Your task to perform on an android device: Look up the best rated headphones on Aliexpress Image 0: 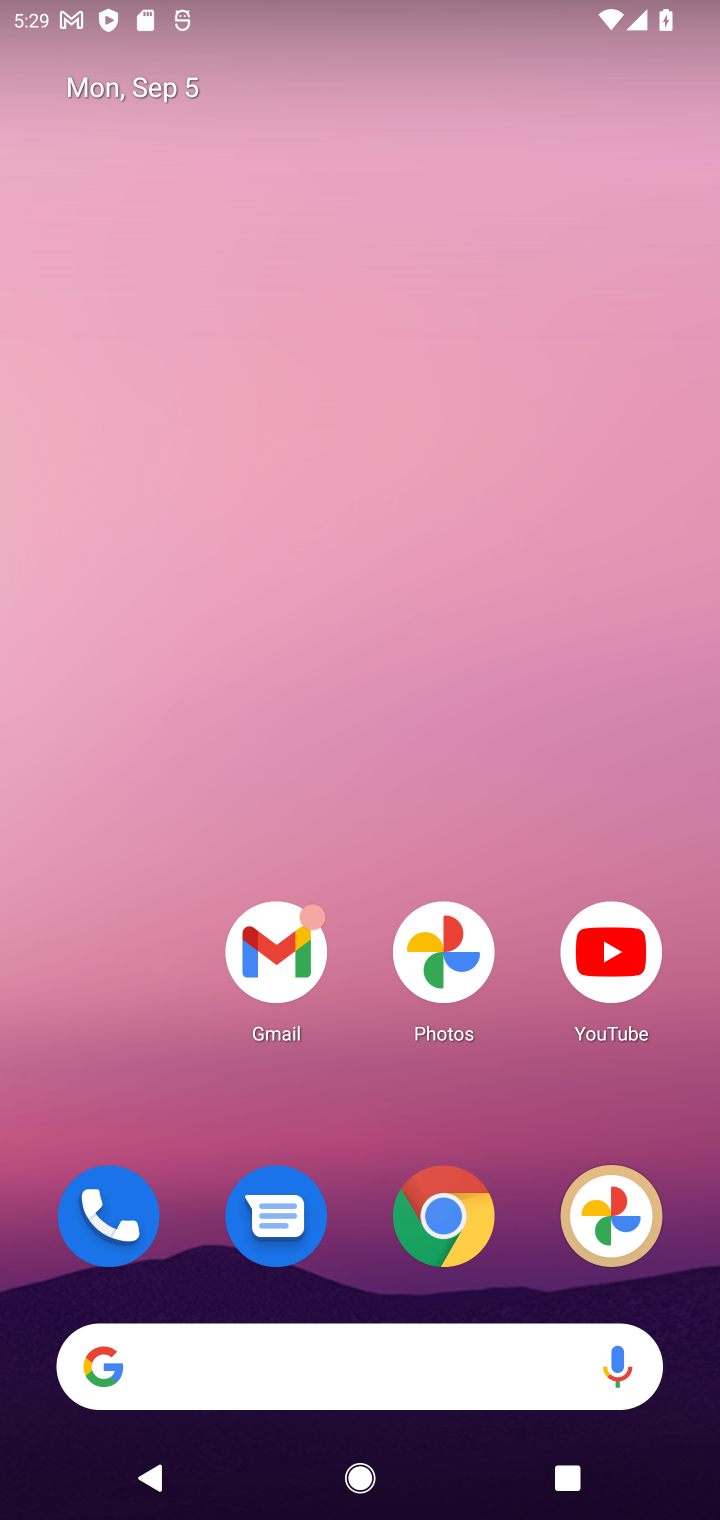
Step 0: drag from (323, 585) to (363, 33)
Your task to perform on an android device: Look up the best rated headphones on Aliexpress Image 1: 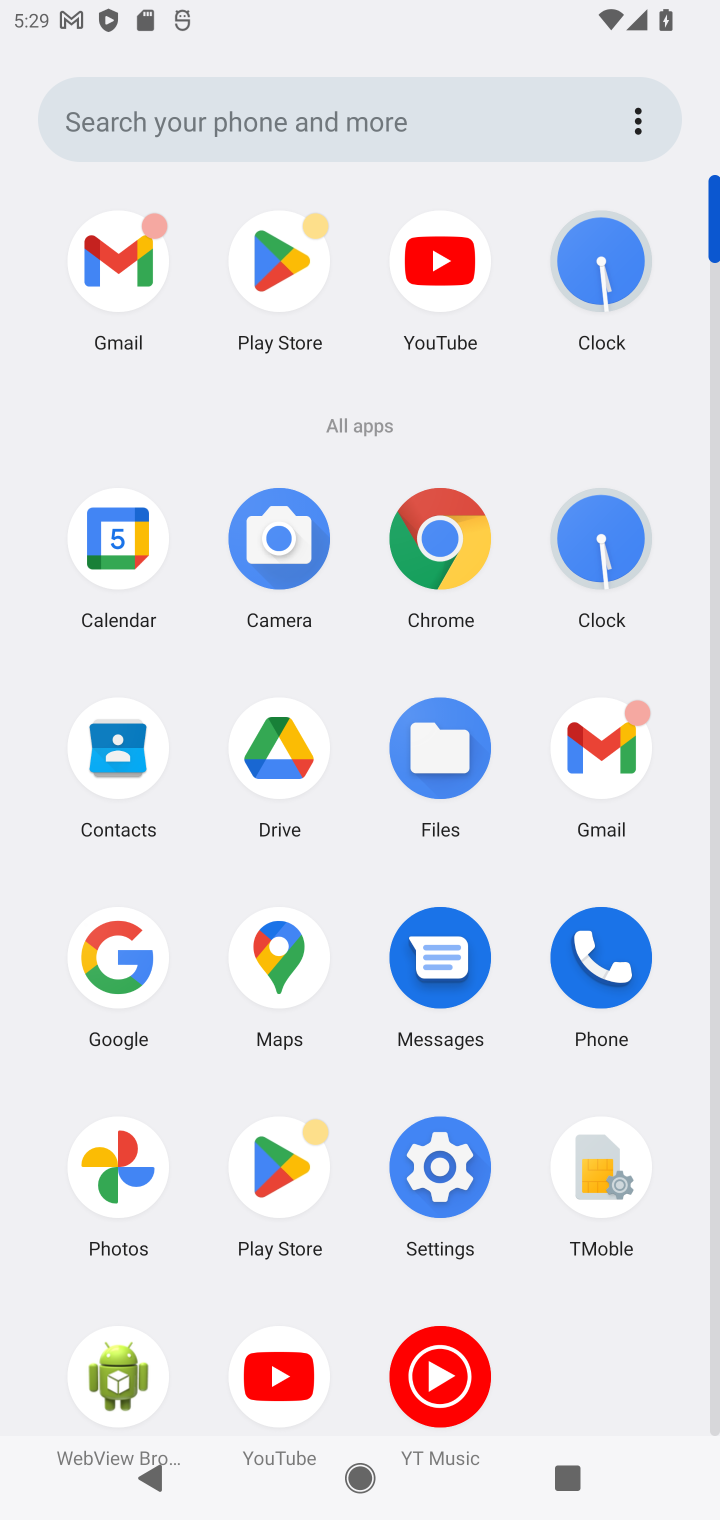
Step 1: click (434, 523)
Your task to perform on an android device: Look up the best rated headphones on Aliexpress Image 2: 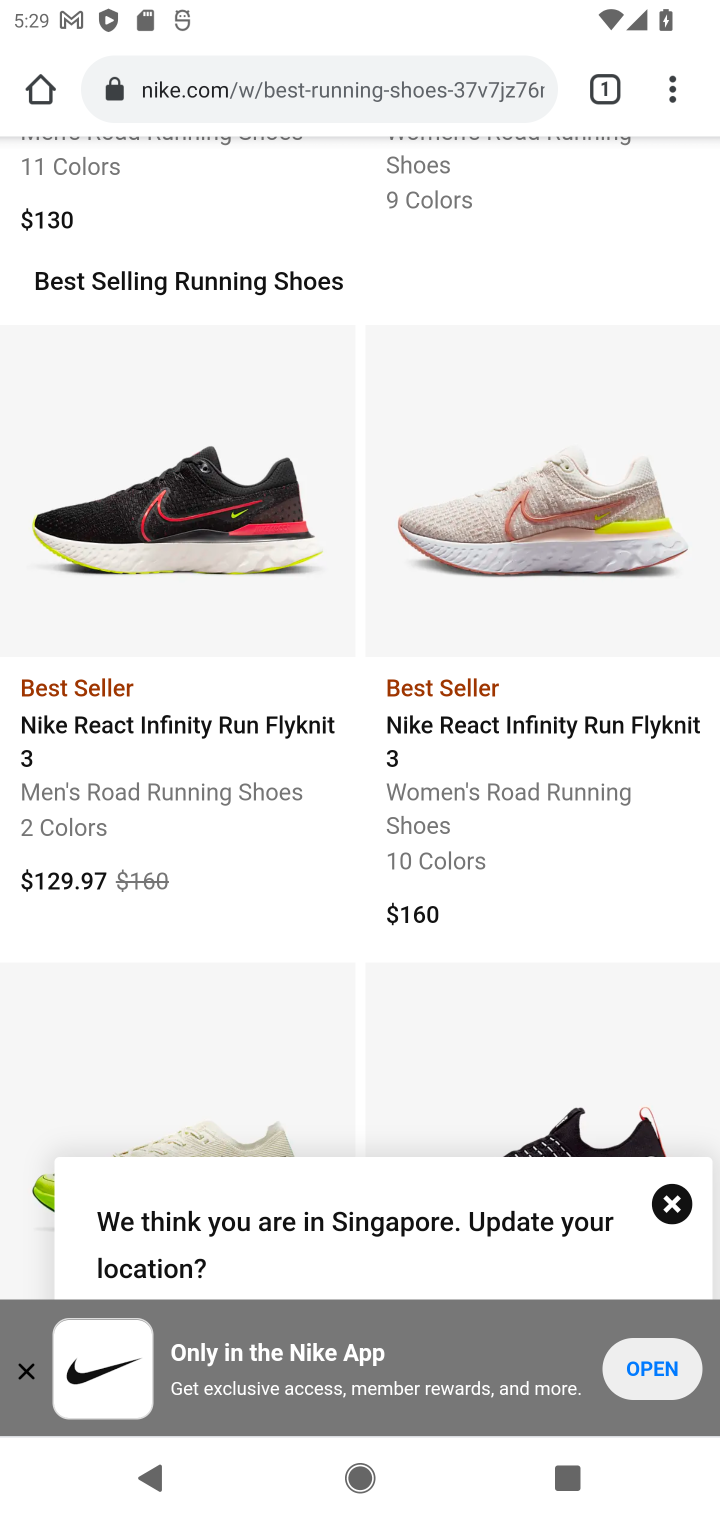
Step 2: click (619, 103)
Your task to perform on an android device: Look up the best rated headphones on Aliexpress Image 3: 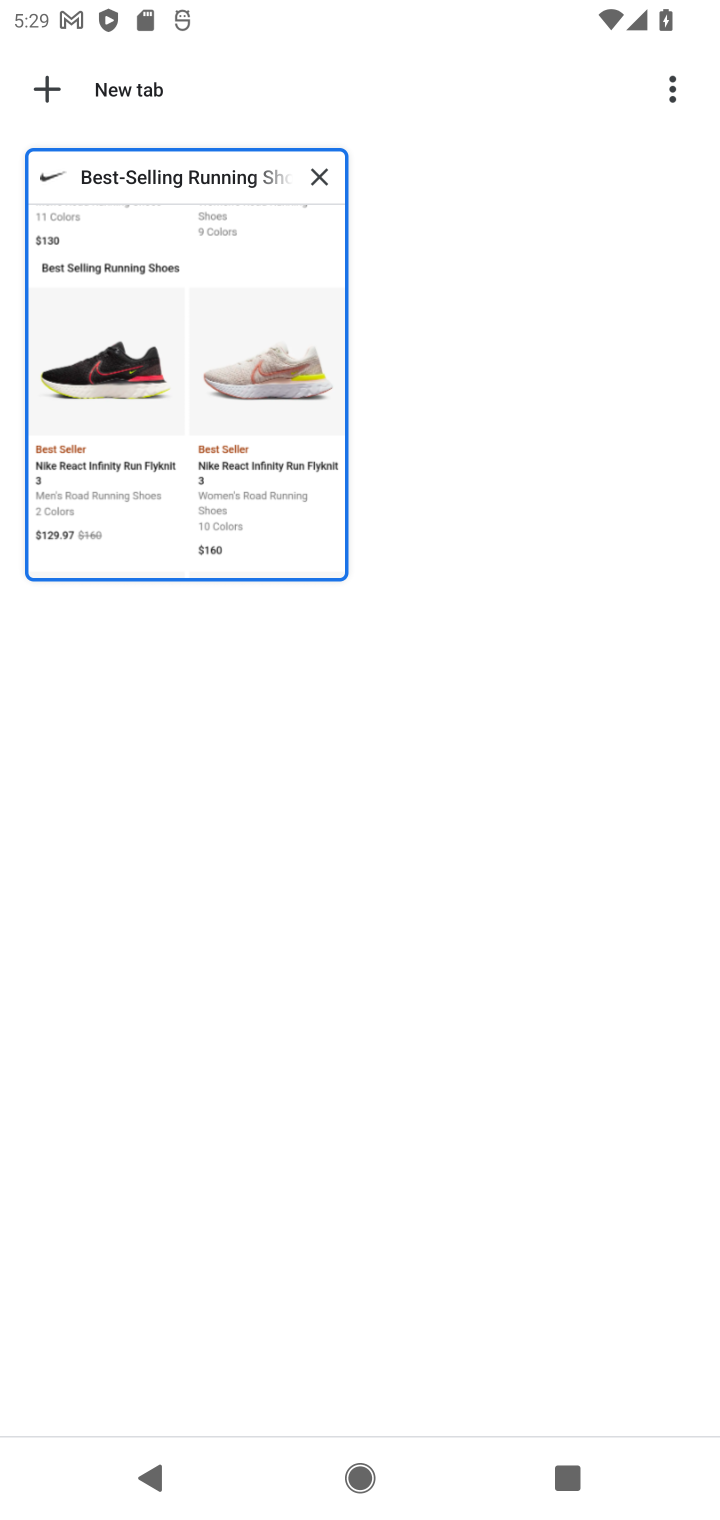
Step 3: click (39, 93)
Your task to perform on an android device: Look up the best rated headphones on Aliexpress Image 4: 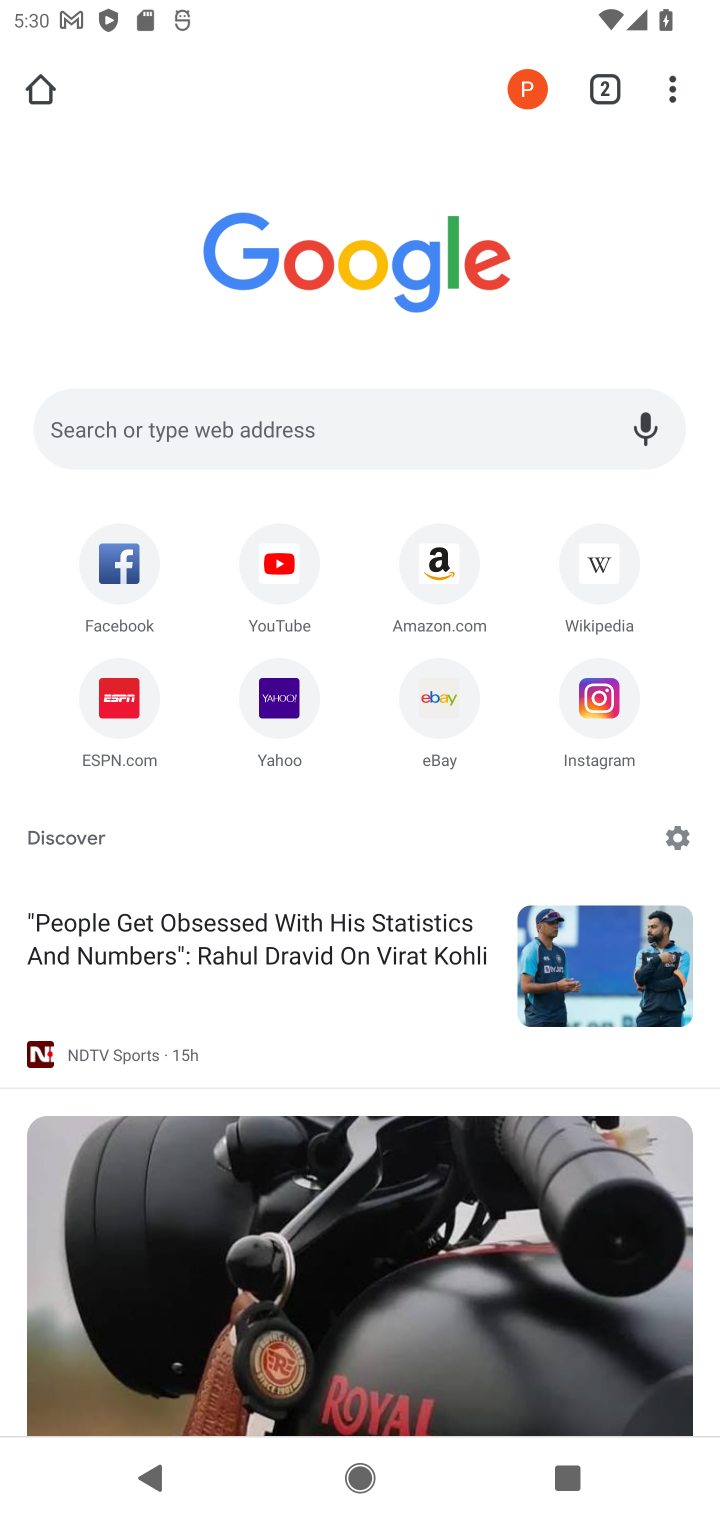
Step 4: click (149, 425)
Your task to perform on an android device: Look up the best rated headphones on Aliexpress Image 5: 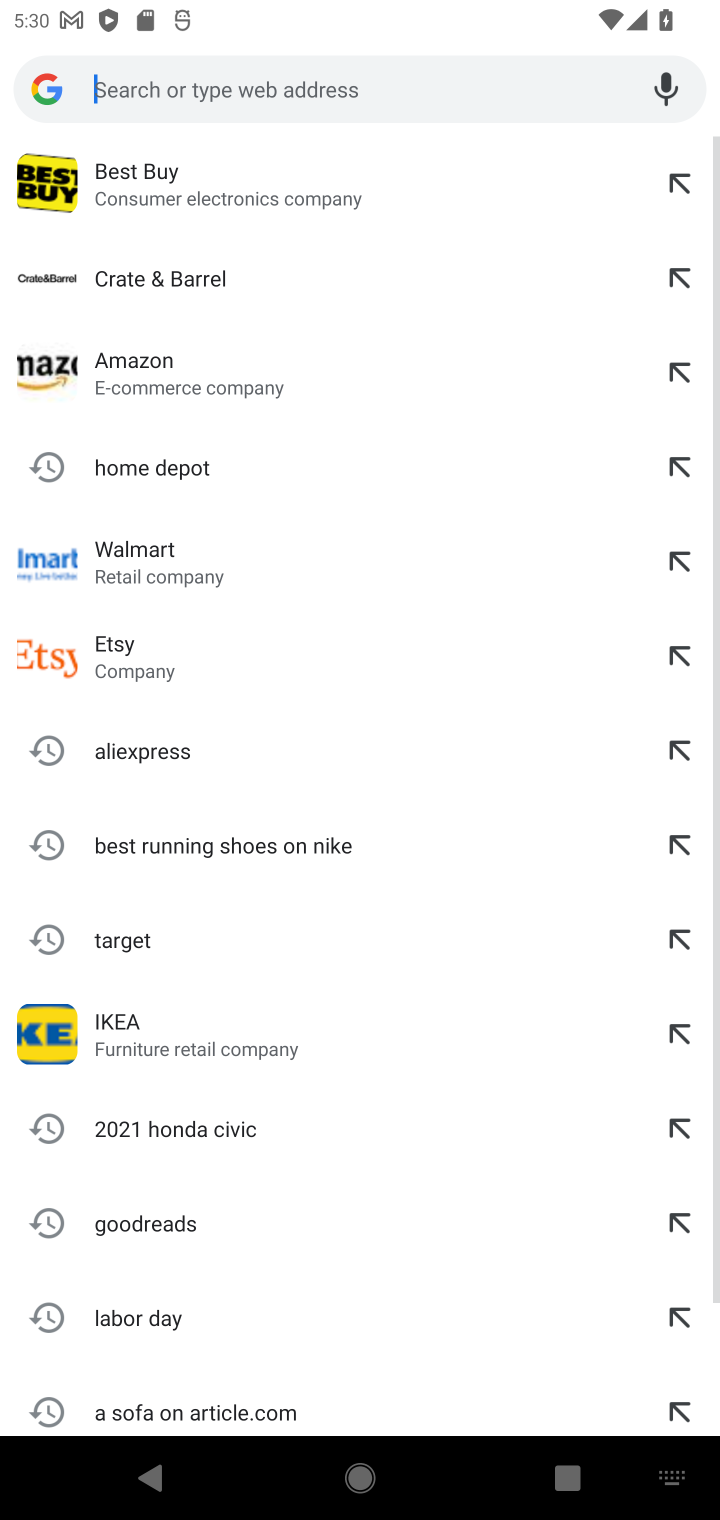
Step 5: type "best rated headphones on Aliexpress"
Your task to perform on an android device: Look up the best rated headphones on Aliexpress Image 6: 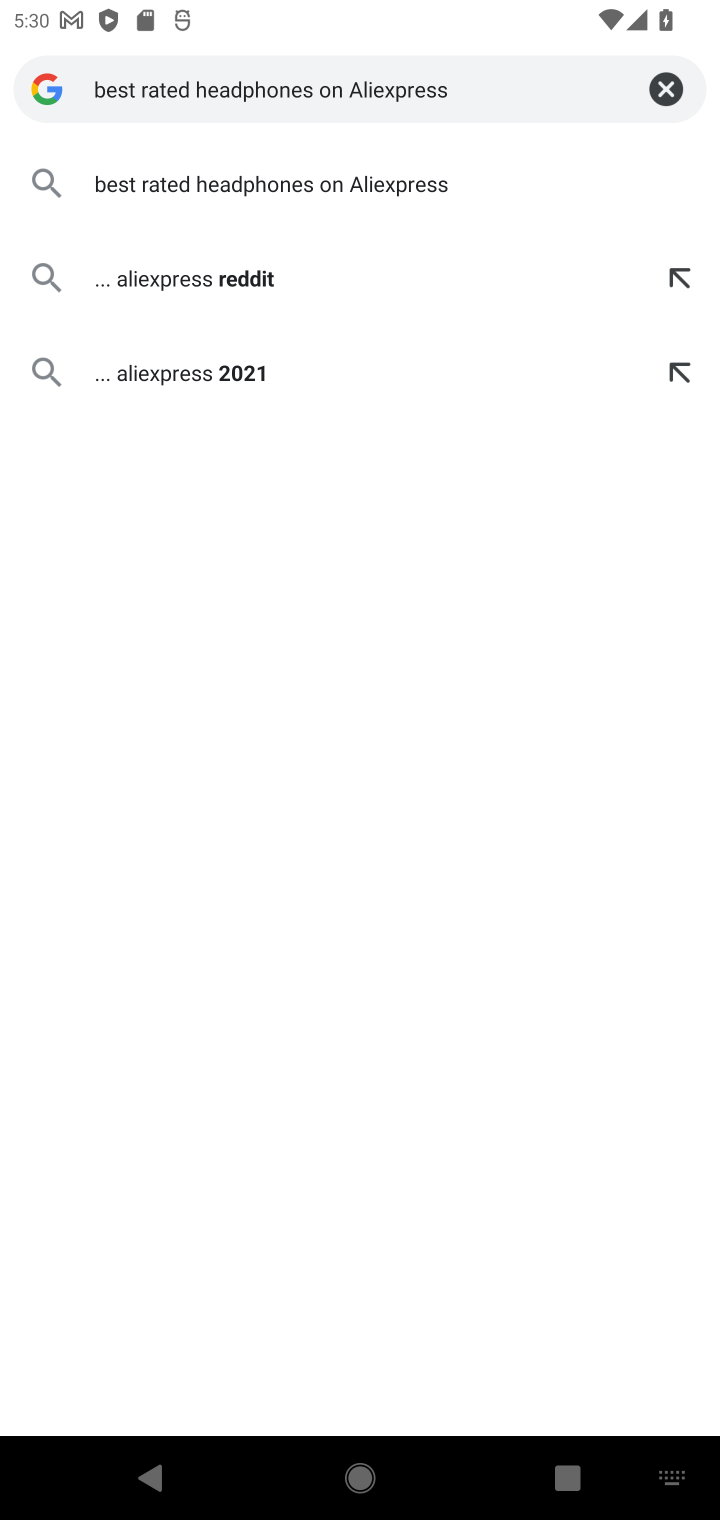
Step 6: click (328, 179)
Your task to perform on an android device: Look up the best rated headphones on Aliexpress Image 7: 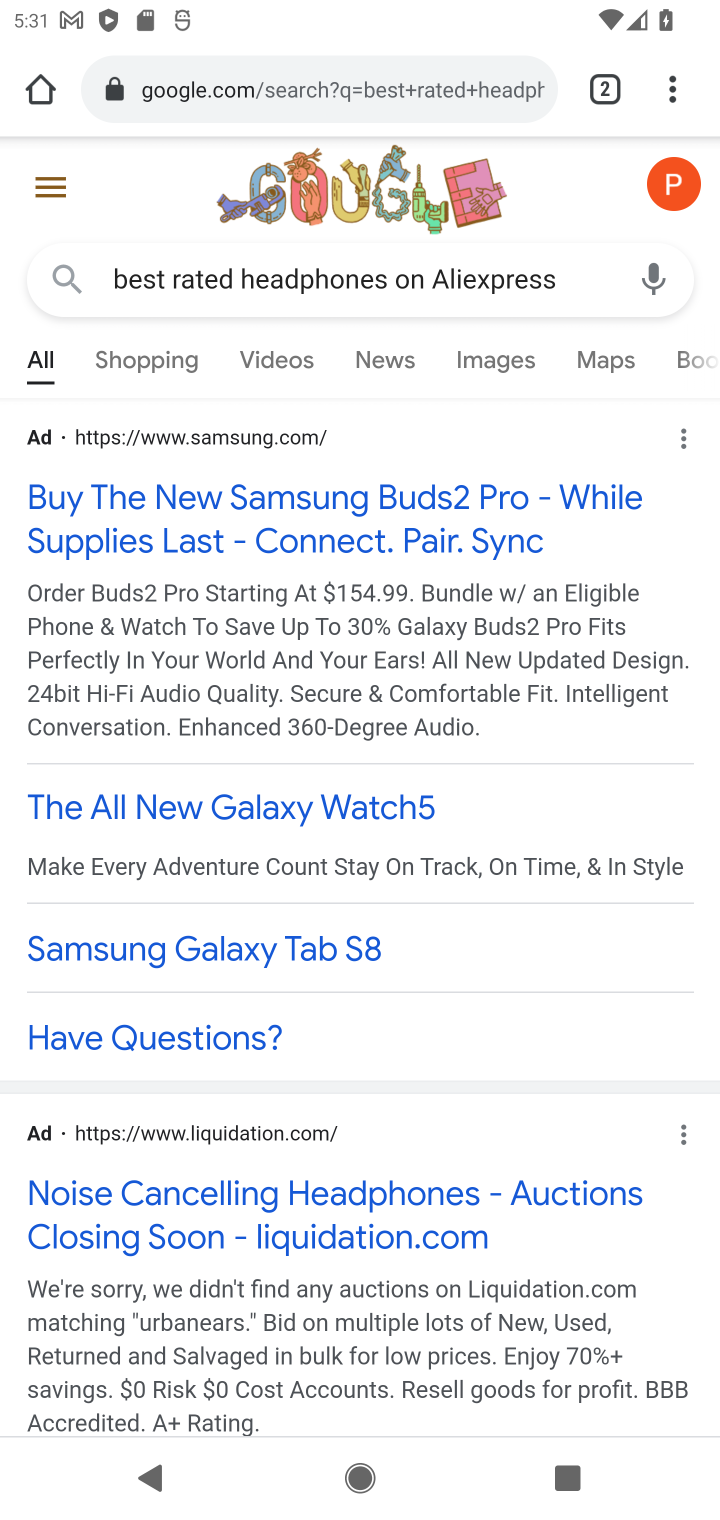
Step 7: drag from (288, 1111) to (441, 30)
Your task to perform on an android device: Look up the best rated headphones on Aliexpress Image 8: 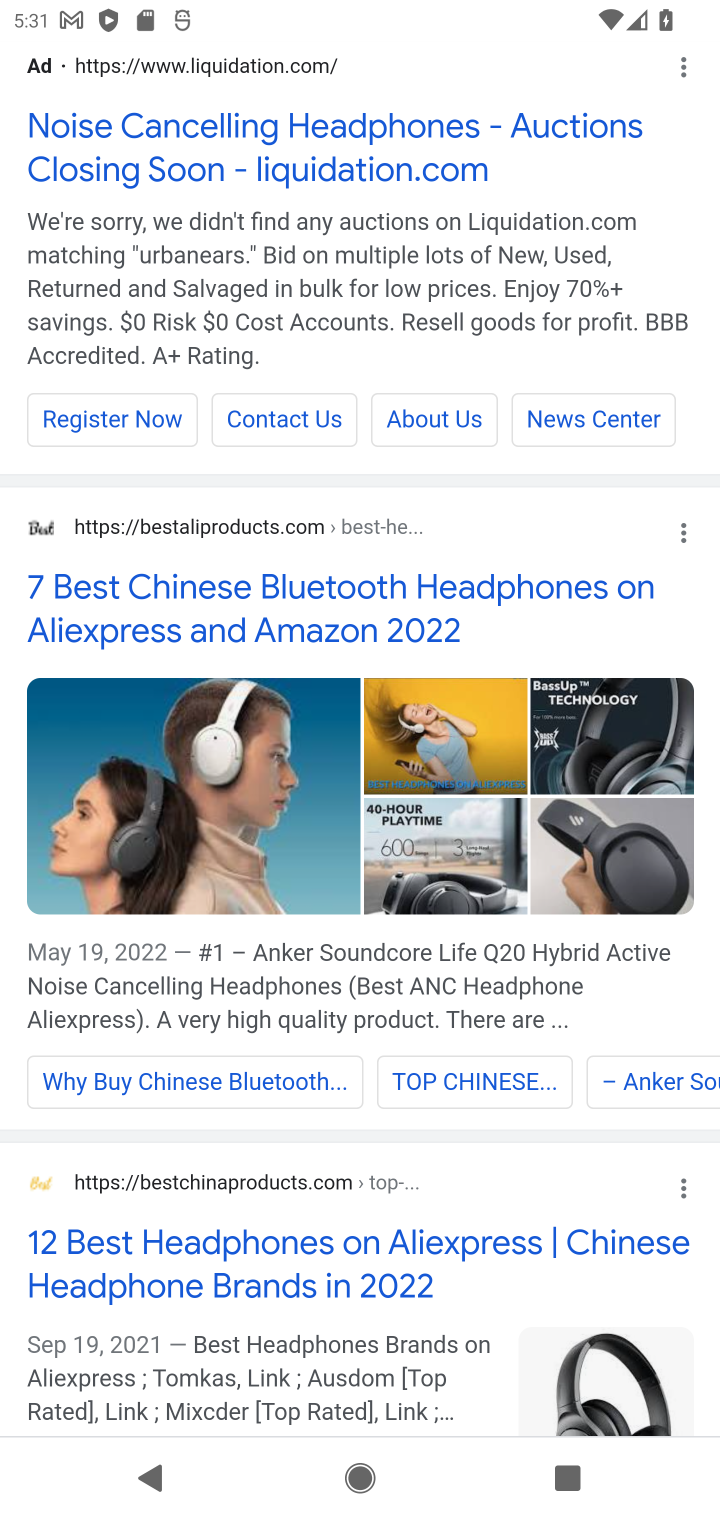
Step 8: drag from (333, 1333) to (432, 419)
Your task to perform on an android device: Look up the best rated headphones on Aliexpress Image 9: 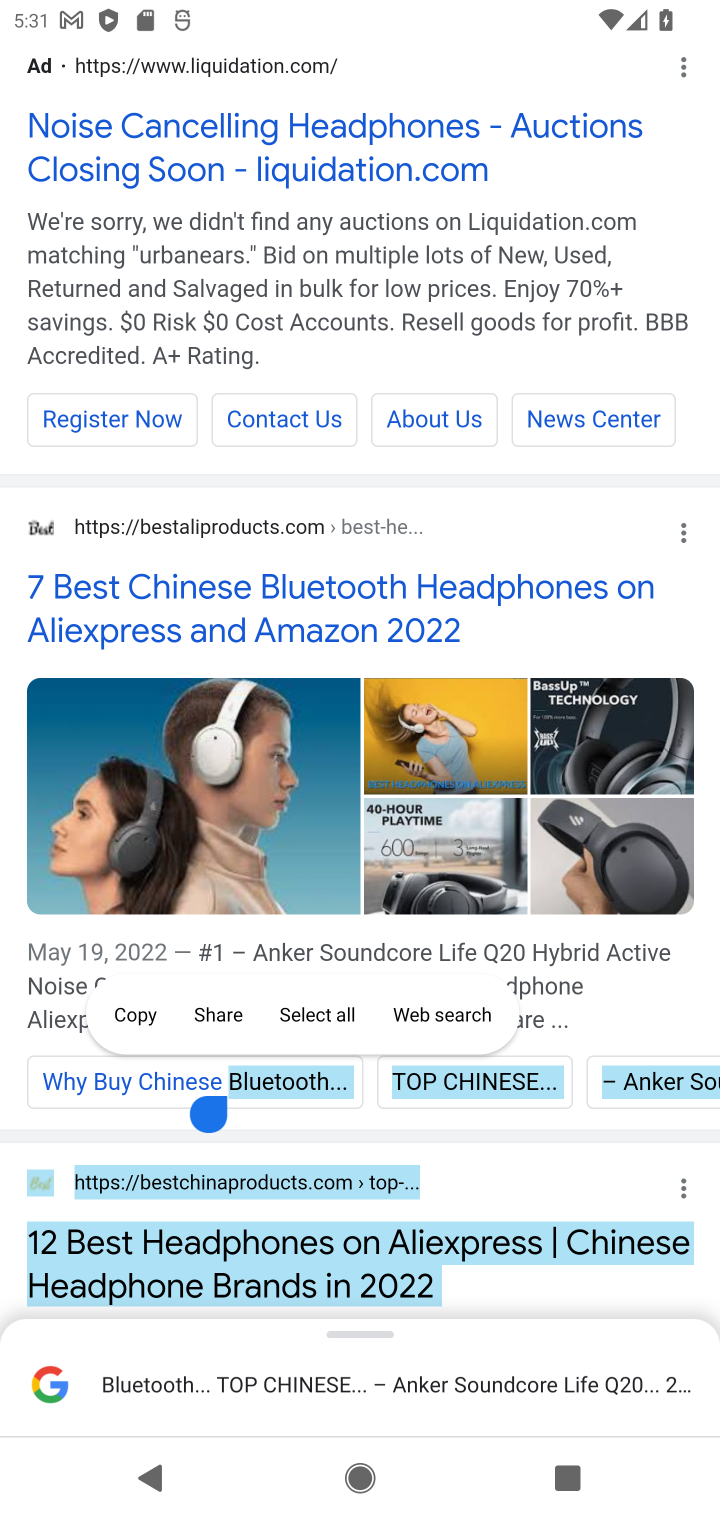
Step 9: drag from (449, 1029) to (534, 322)
Your task to perform on an android device: Look up the best rated headphones on Aliexpress Image 10: 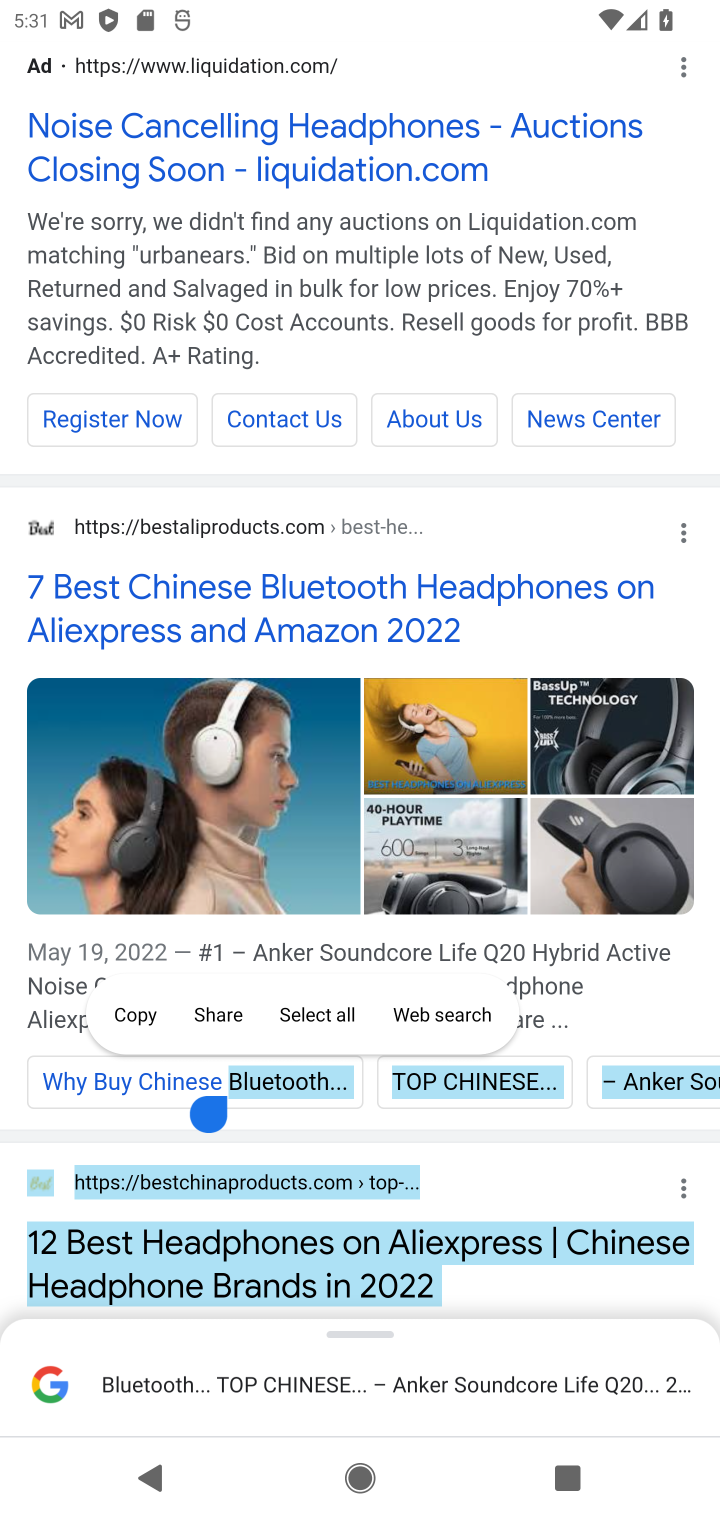
Step 10: drag from (287, 504) to (344, 4)
Your task to perform on an android device: Look up the best rated headphones on Aliexpress Image 11: 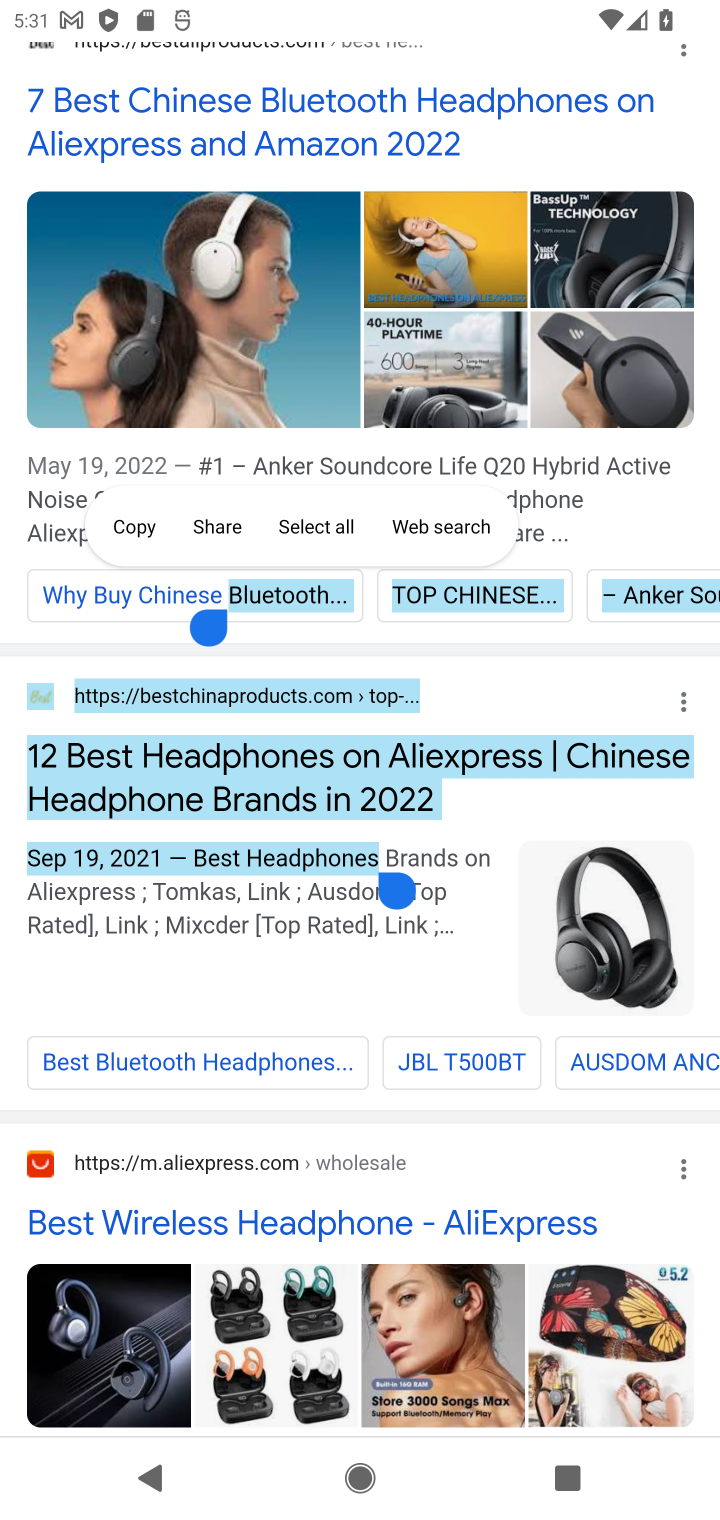
Step 11: drag from (370, 1096) to (361, 246)
Your task to perform on an android device: Look up the best rated headphones on Aliexpress Image 12: 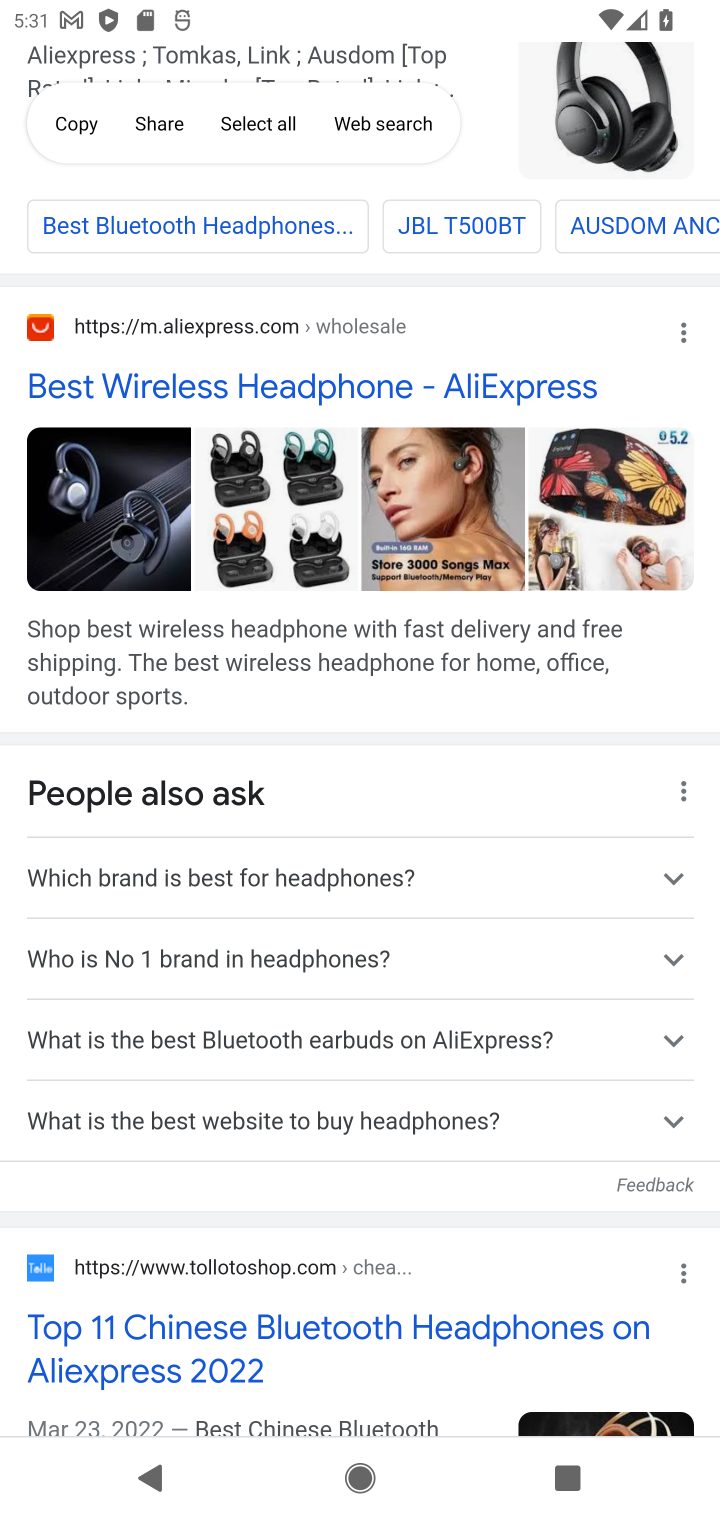
Step 12: click (330, 572)
Your task to perform on an android device: Look up the best rated headphones on Aliexpress Image 13: 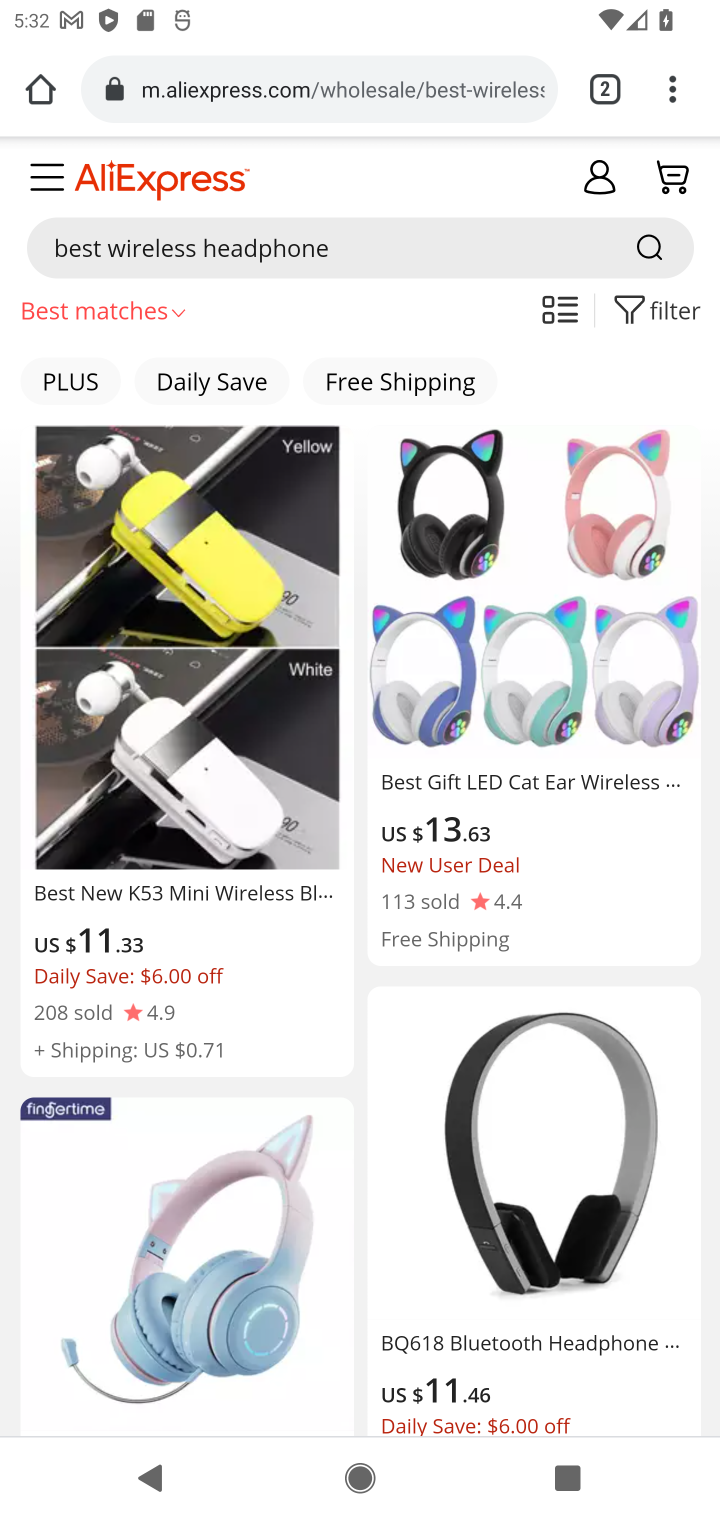
Step 13: drag from (354, 935) to (365, 620)
Your task to perform on an android device: Look up the best rated headphones on Aliexpress Image 14: 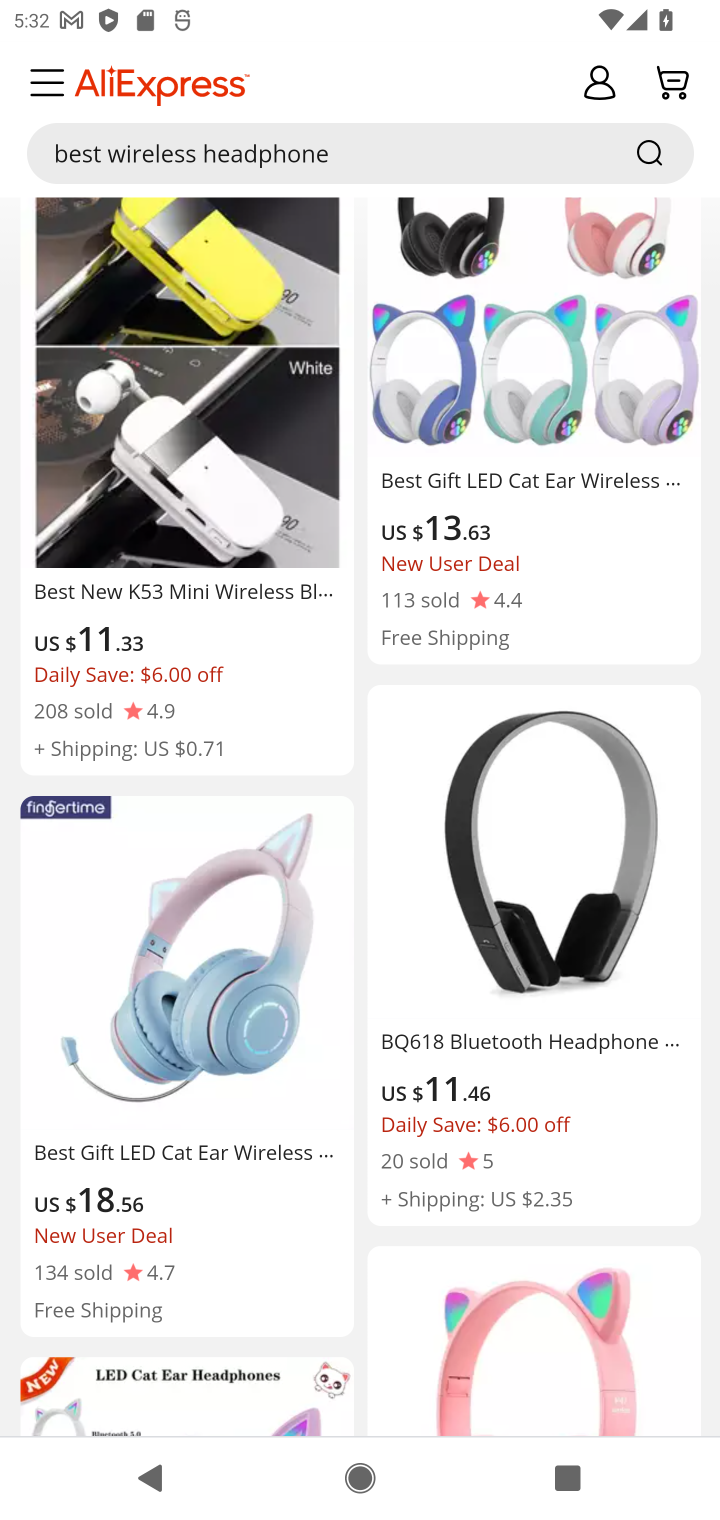
Step 14: drag from (353, 1229) to (359, 307)
Your task to perform on an android device: Look up the best rated headphones on Aliexpress Image 15: 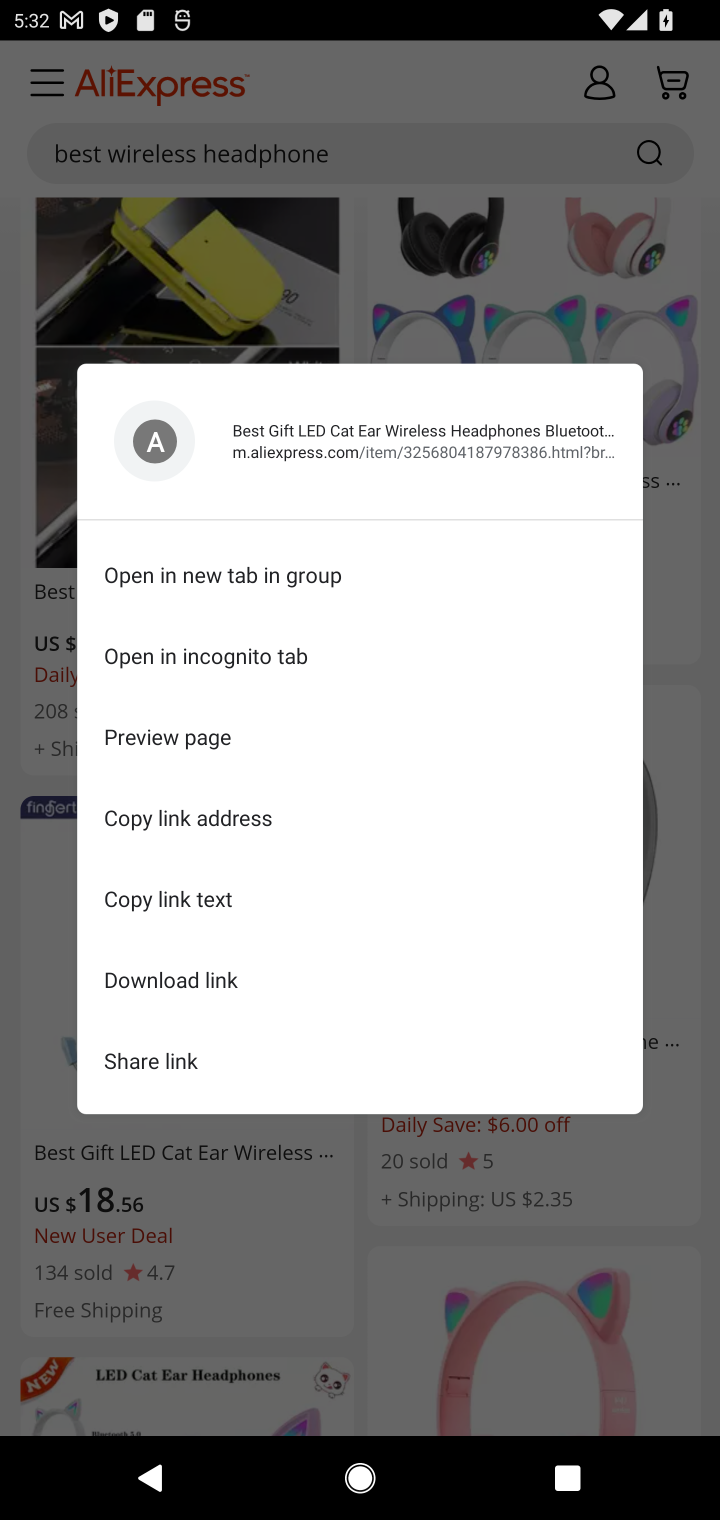
Step 15: click (283, 238)
Your task to perform on an android device: Look up the best rated headphones on Aliexpress Image 16: 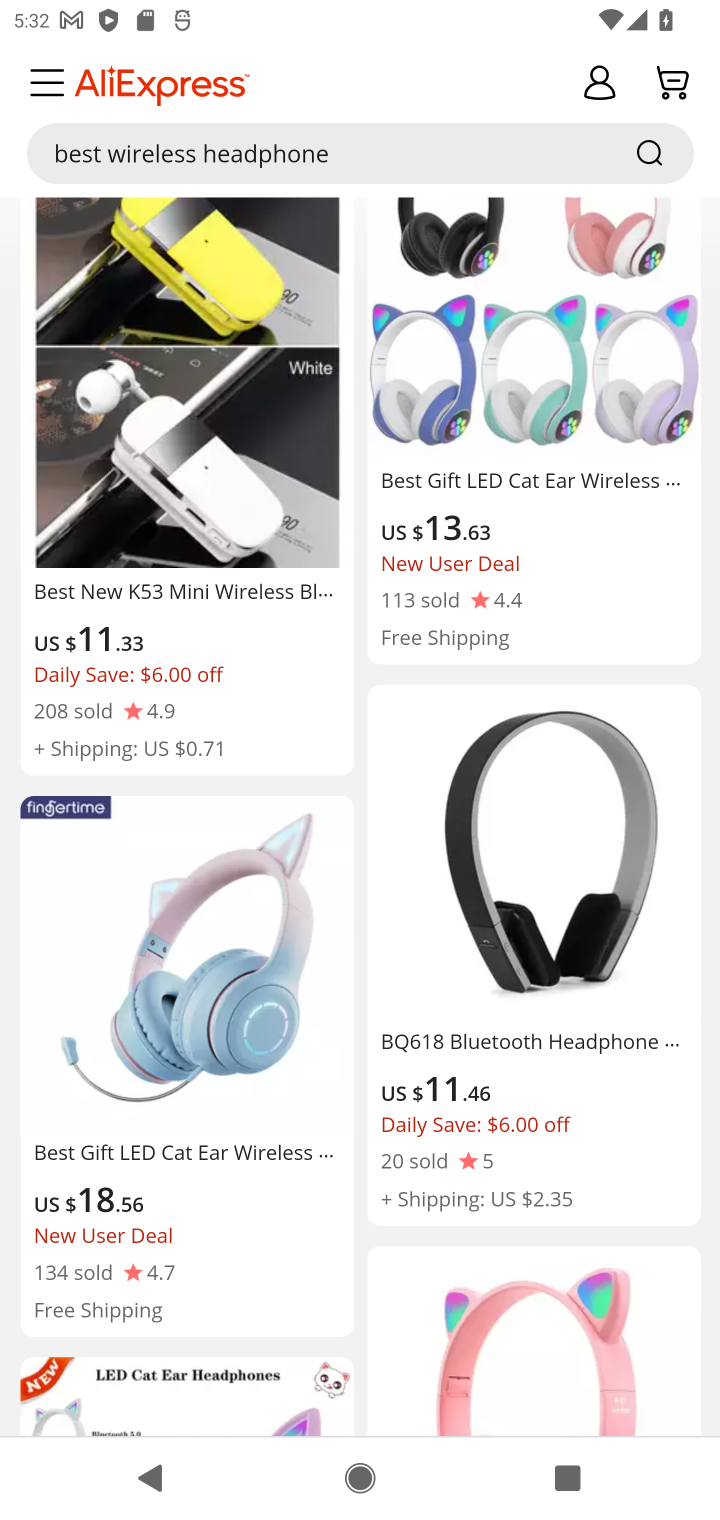
Step 16: task complete